Your task to perform on an android device: turn on wifi Image 0: 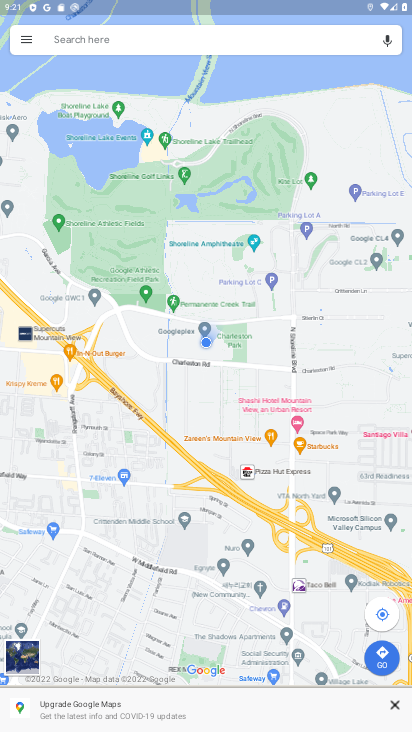
Step 0: press home button
Your task to perform on an android device: turn on wifi Image 1: 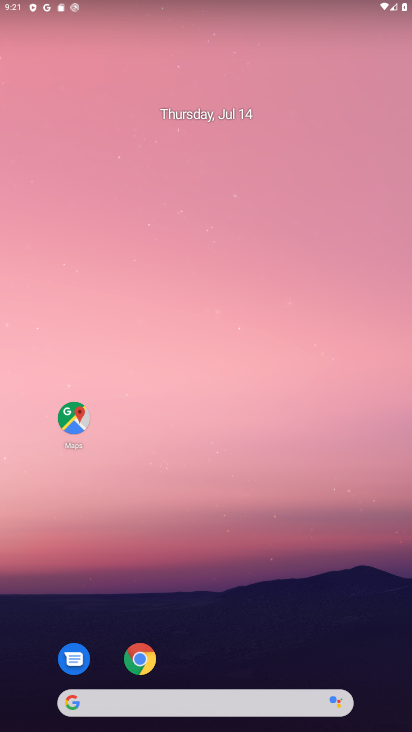
Step 1: task complete